Your task to perform on an android device: Open Yahoo.com Image 0: 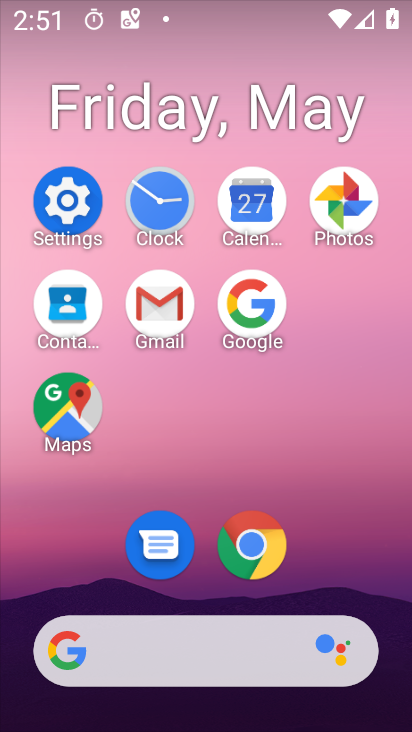
Step 0: click (247, 555)
Your task to perform on an android device: Open Yahoo.com Image 1: 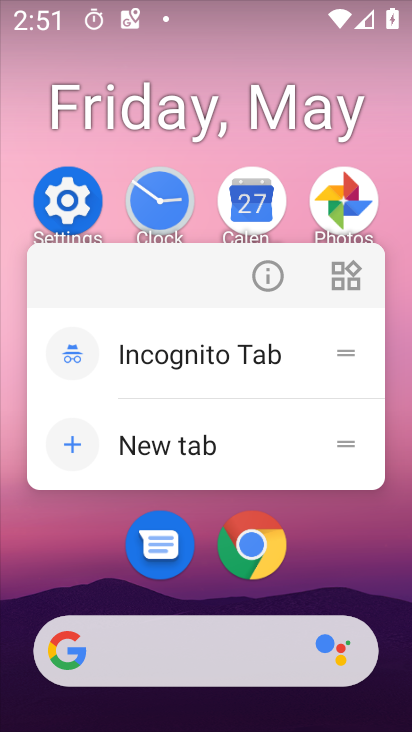
Step 1: click (257, 549)
Your task to perform on an android device: Open Yahoo.com Image 2: 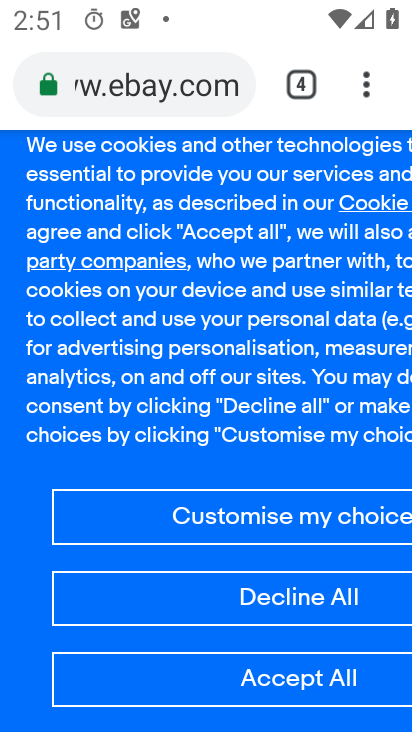
Step 2: click (309, 74)
Your task to perform on an android device: Open Yahoo.com Image 3: 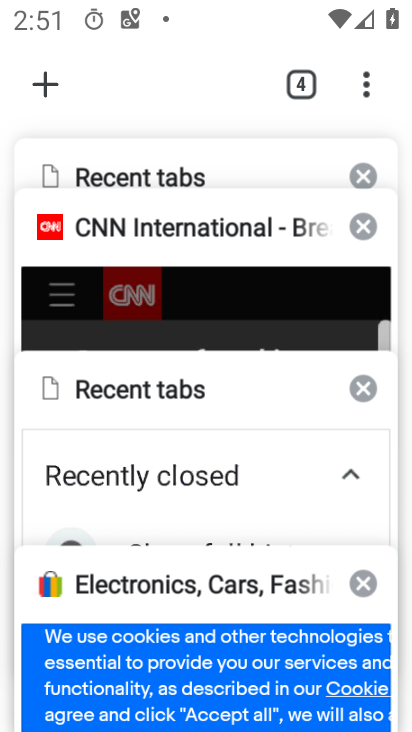
Step 3: click (55, 81)
Your task to perform on an android device: Open Yahoo.com Image 4: 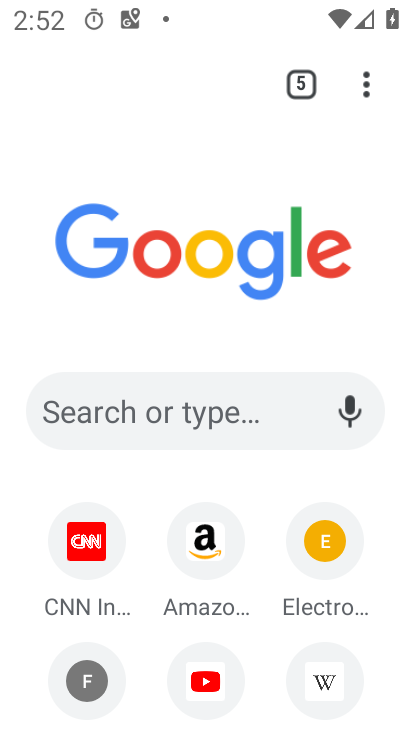
Step 4: click (227, 412)
Your task to perform on an android device: Open Yahoo.com Image 5: 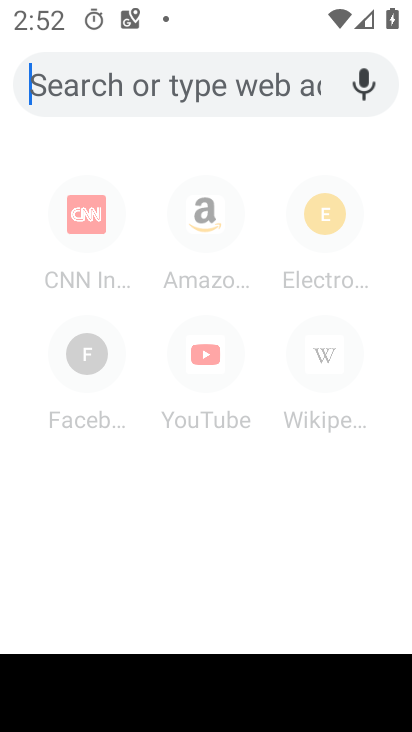
Step 5: type "yahoo"
Your task to perform on an android device: Open Yahoo.com Image 6: 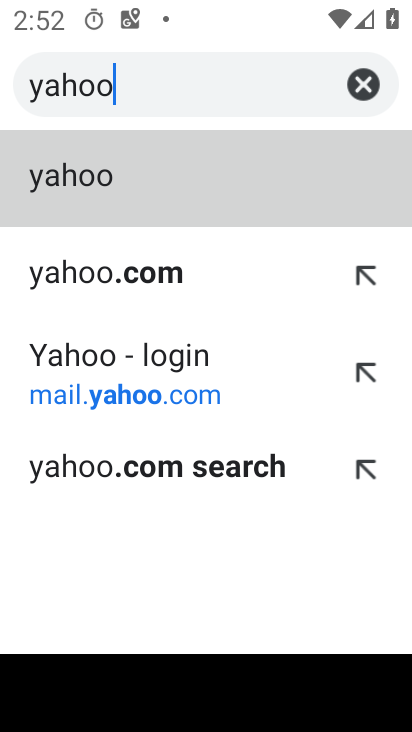
Step 6: click (145, 284)
Your task to perform on an android device: Open Yahoo.com Image 7: 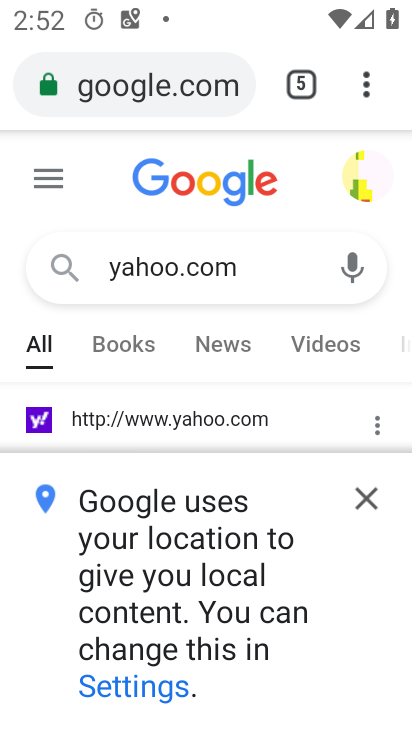
Step 7: click (360, 503)
Your task to perform on an android device: Open Yahoo.com Image 8: 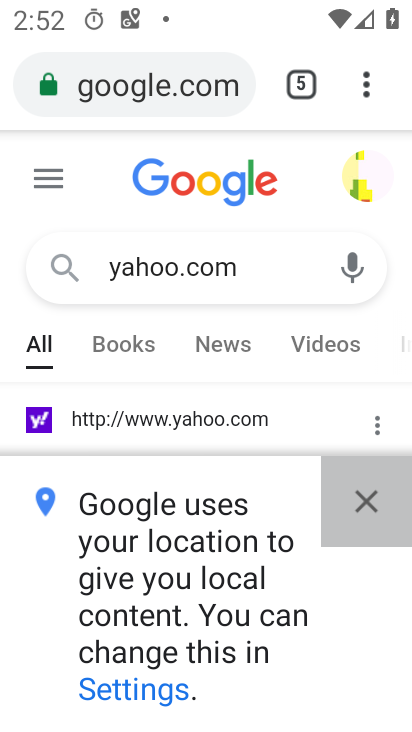
Step 8: click (184, 417)
Your task to perform on an android device: Open Yahoo.com Image 9: 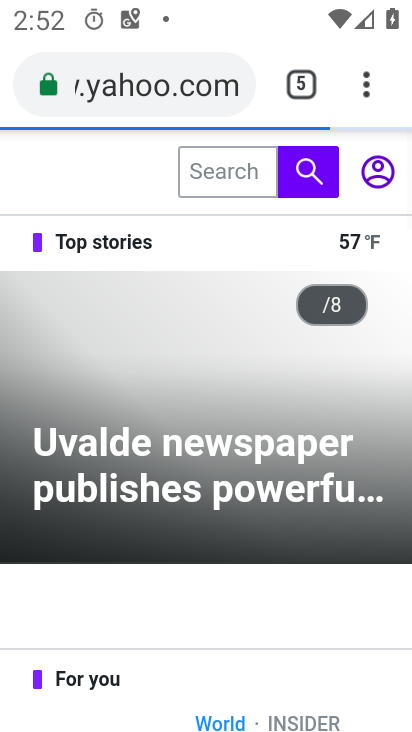
Step 9: task complete